Your task to perform on an android device: Add "logitech g pro" to the cart on ebay Image 0: 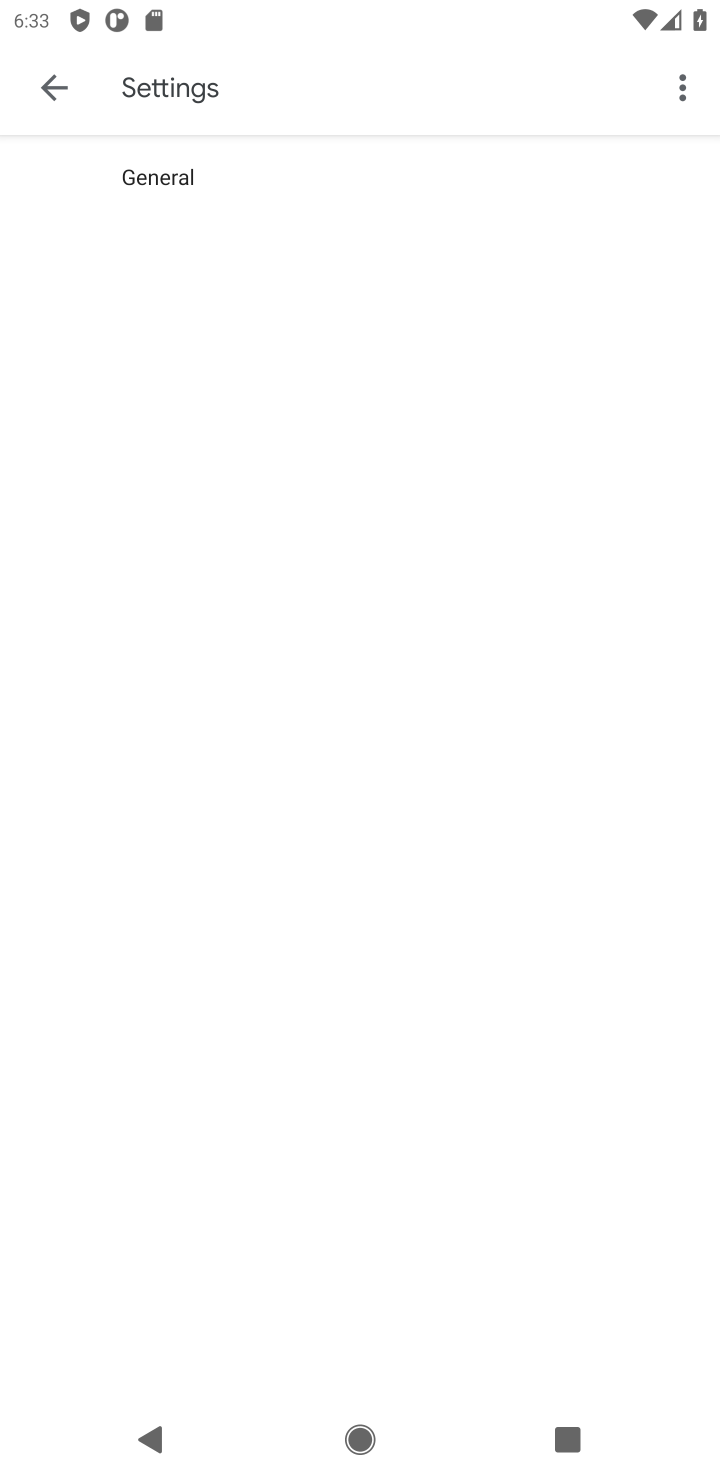
Step 0: press home button
Your task to perform on an android device: Add "logitech g pro" to the cart on ebay Image 1: 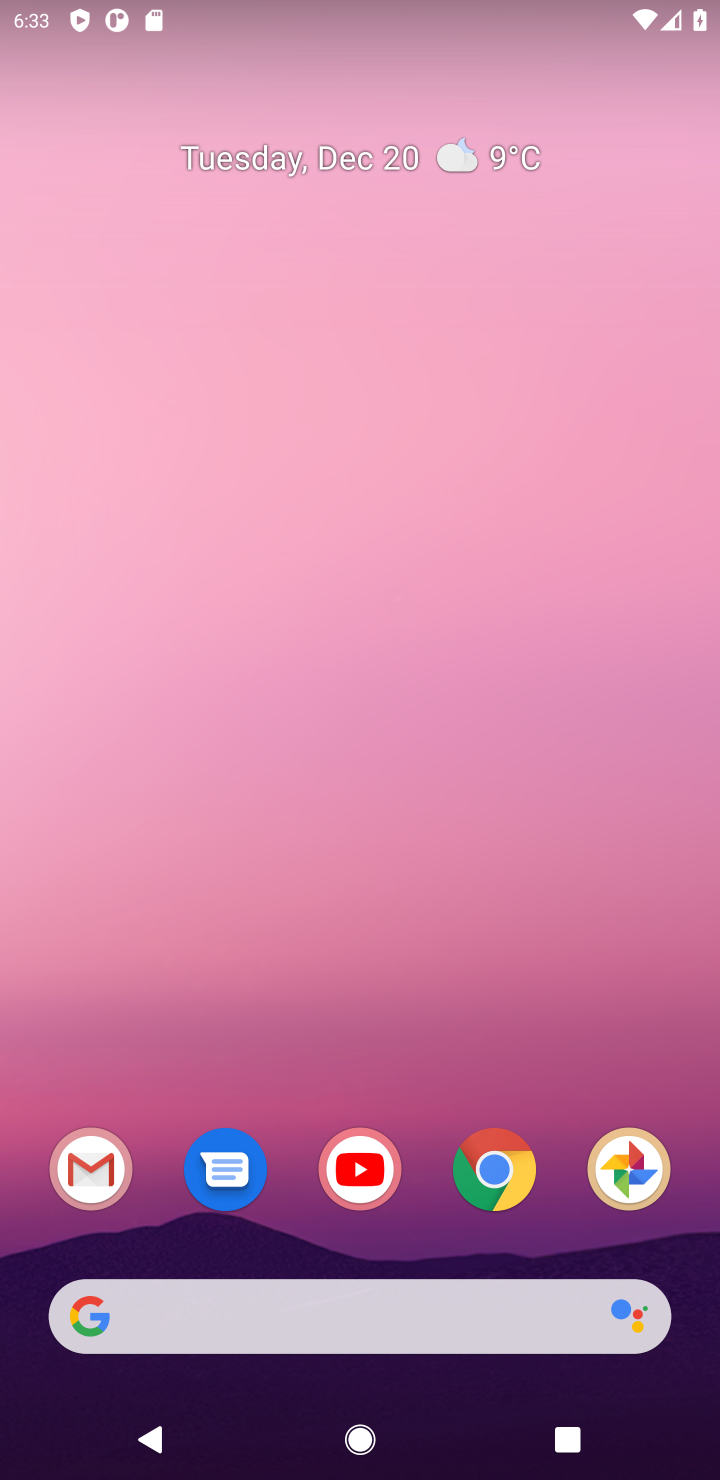
Step 1: click (510, 1159)
Your task to perform on an android device: Add "logitech g pro" to the cart on ebay Image 2: 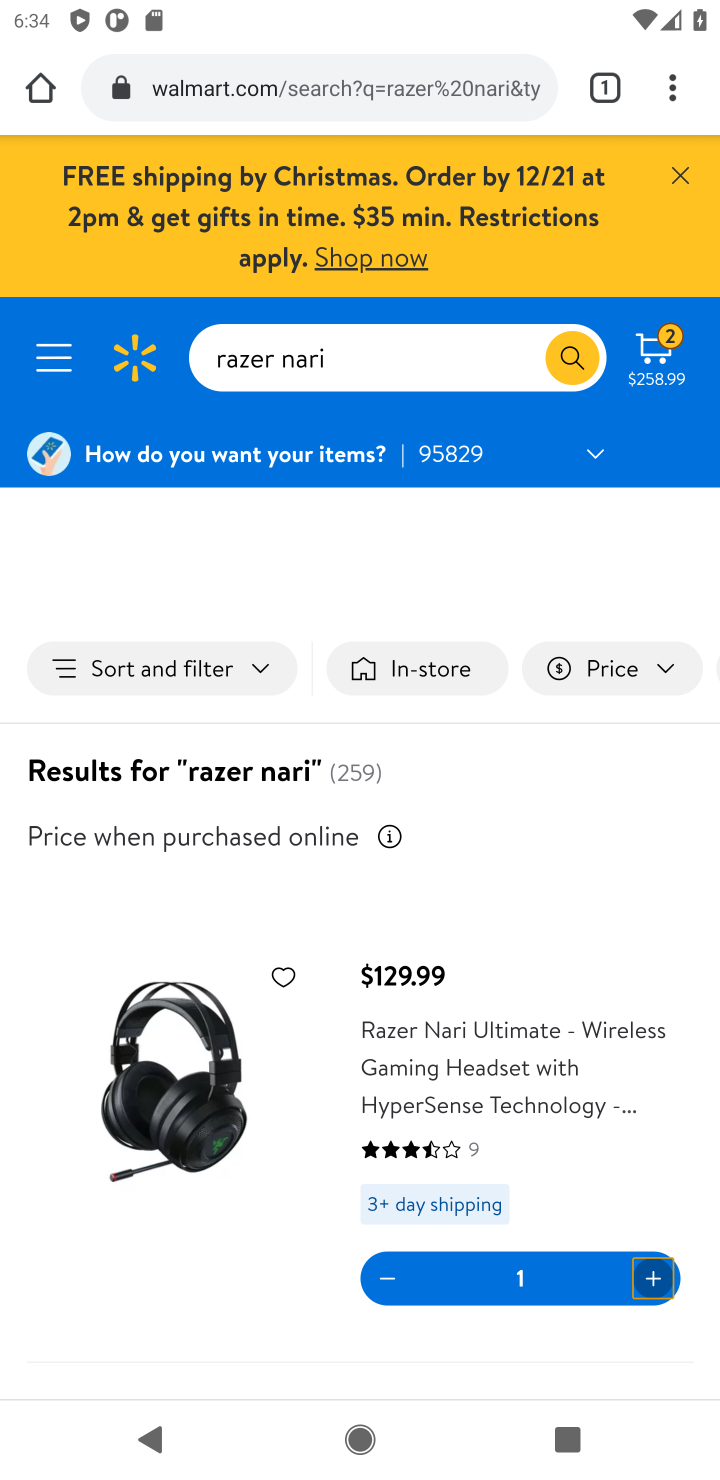
Step 2: click (270, 89)
Your task to perform on an android device: Add "logitech g pro" to the cart on ebay Image 3: 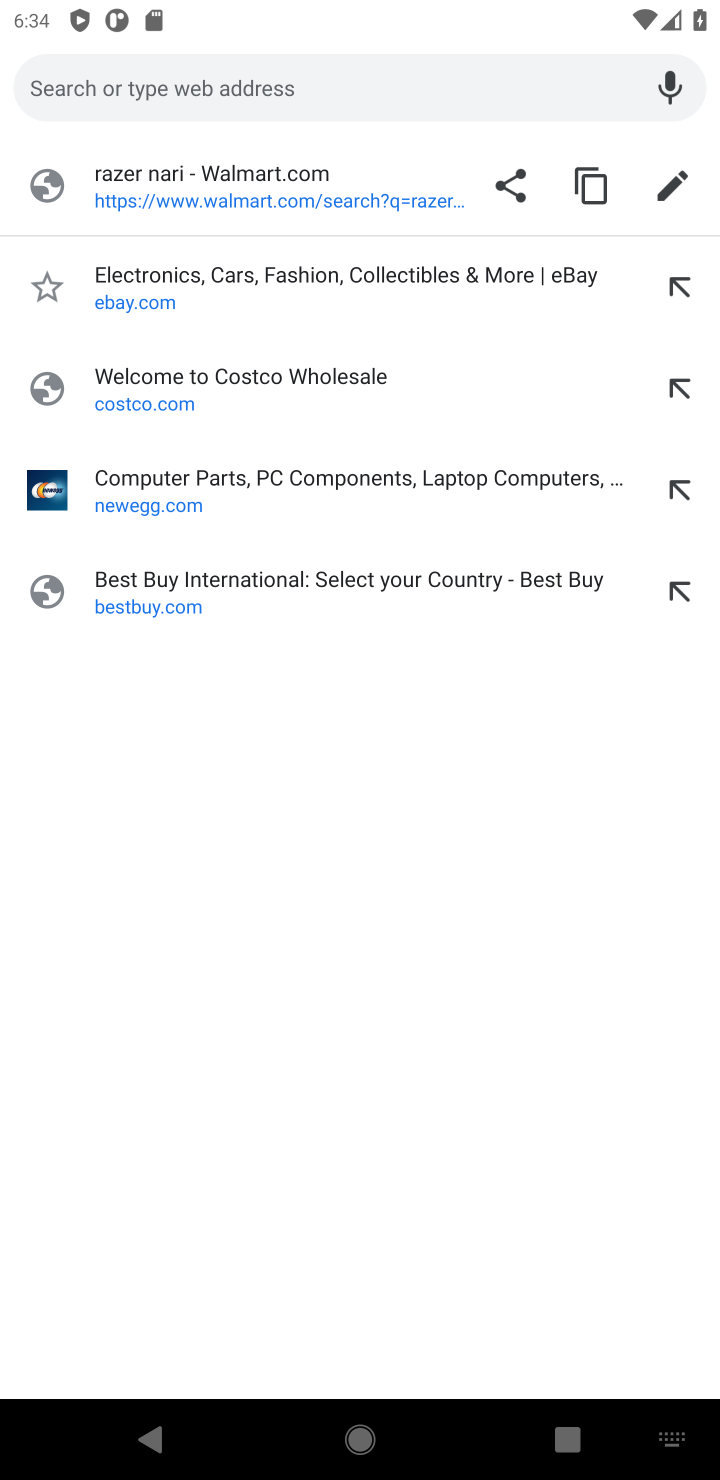
Step 3: click (205, 277)
Your task to perform on an android device: Add "logitech g pro" to the cart on ebay Image 4: 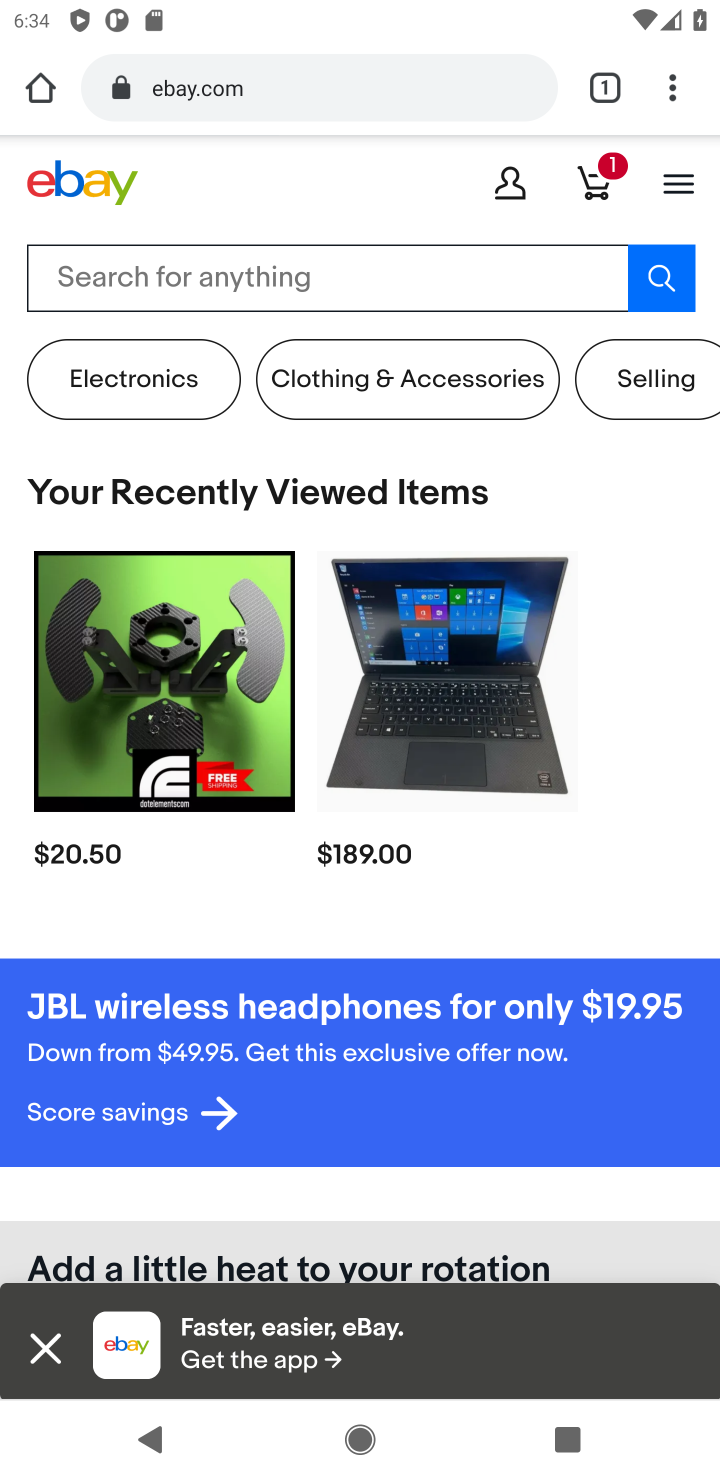
Step 4: click (205, 277)
Your task to perform on an android device: Add "logitech g pro" to the cart on ebay Image 5: 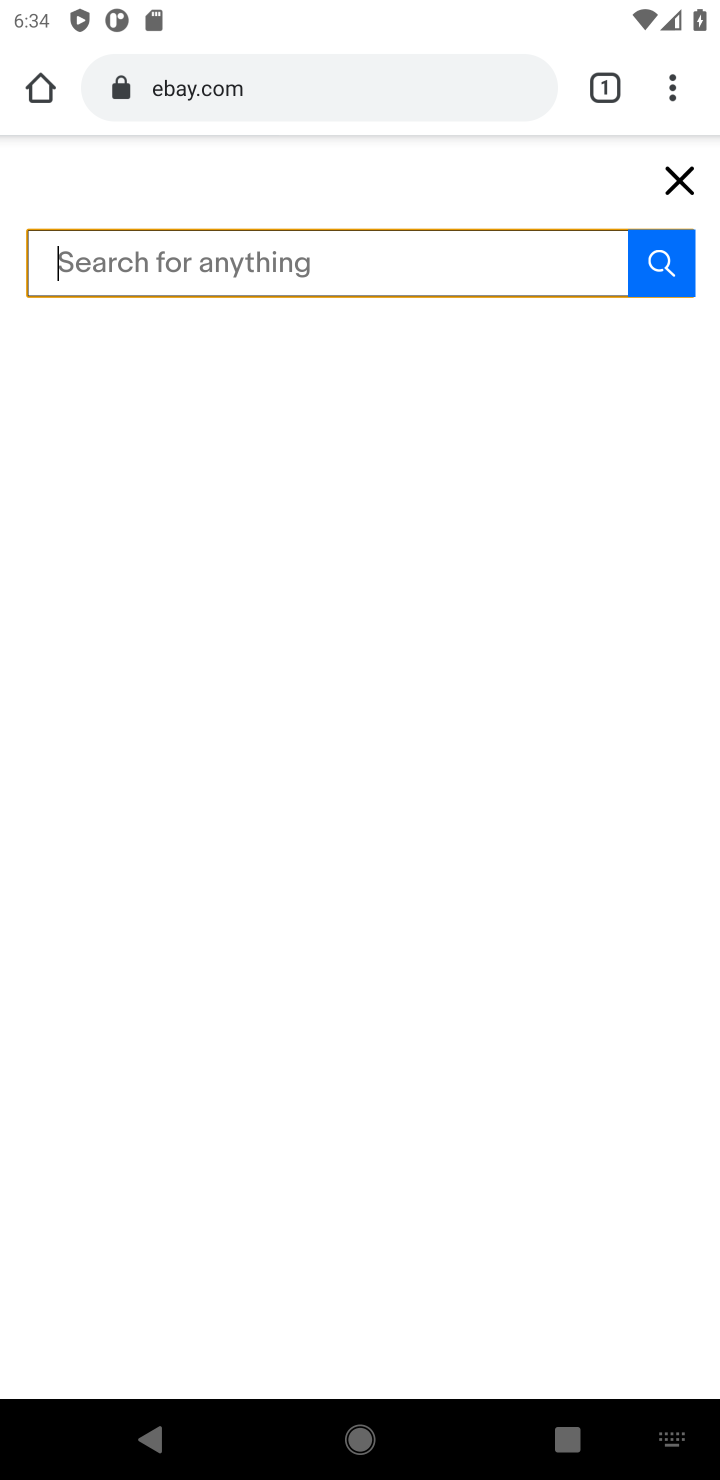
Step 5: type "logitech g pro"
Your task to perform on an android device: Add "logitech g pro" to the cart on ebay Image 6: 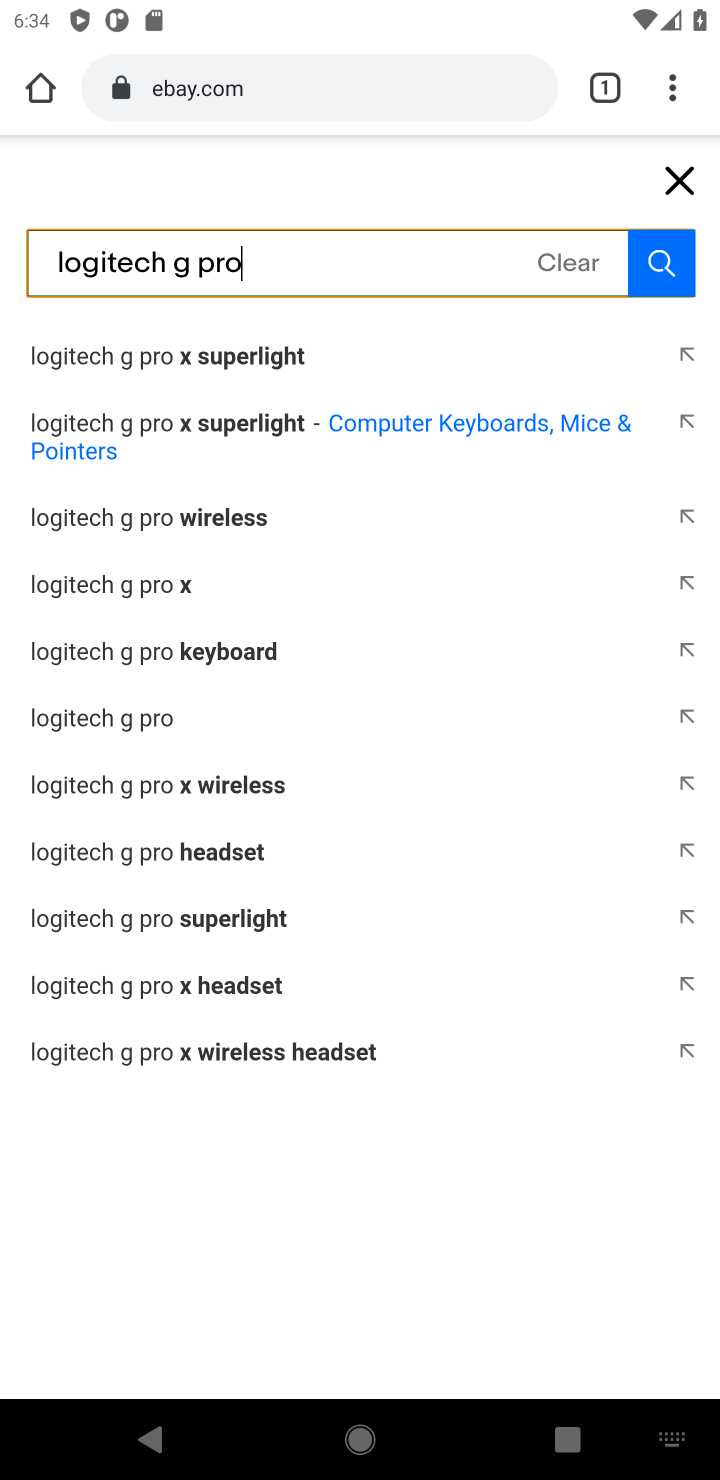
Step 6: click (150, 728)
Your task to perform on an android device: Add "logitech g pro" to the cart on ebay Image 7: 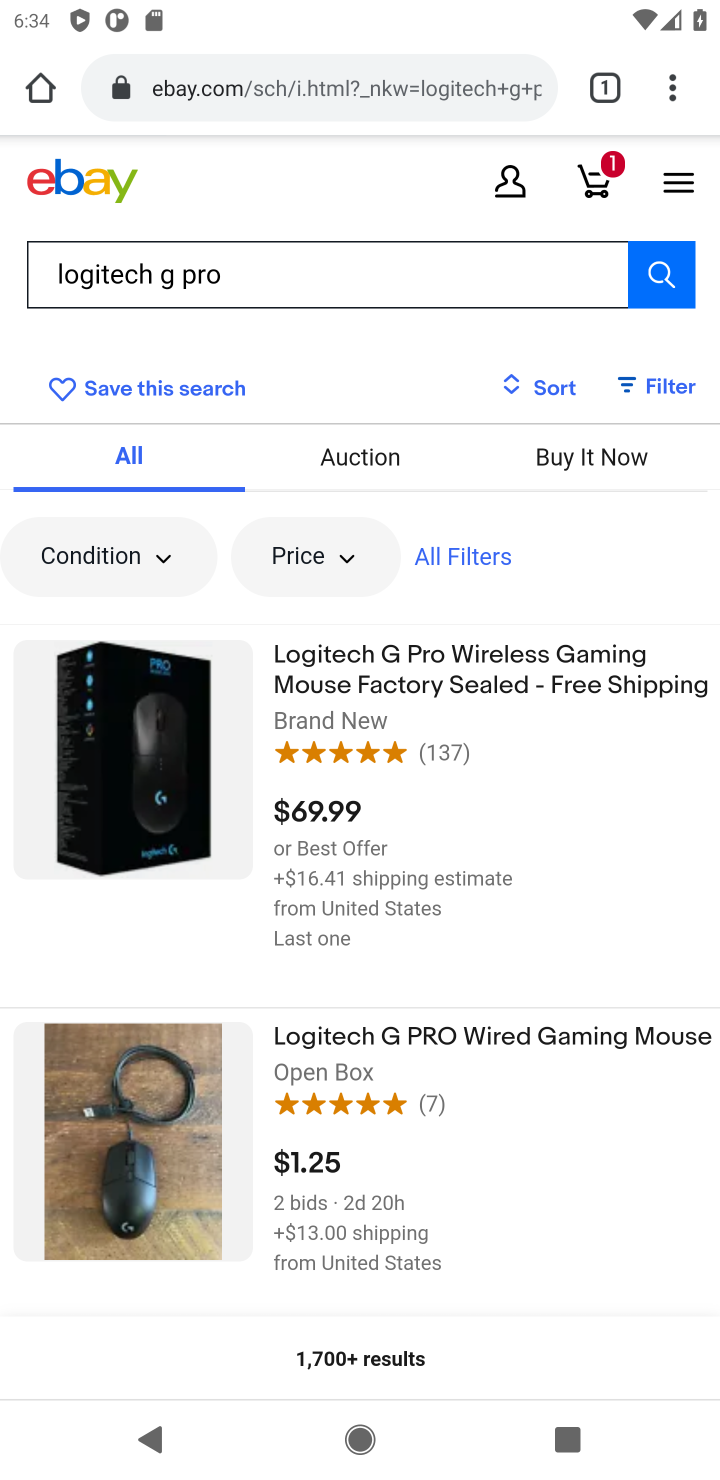
Step 7: click (565, 686)
Your task to perform on an android device: Add "logitech g pro" to the cart on ebay Image 8: 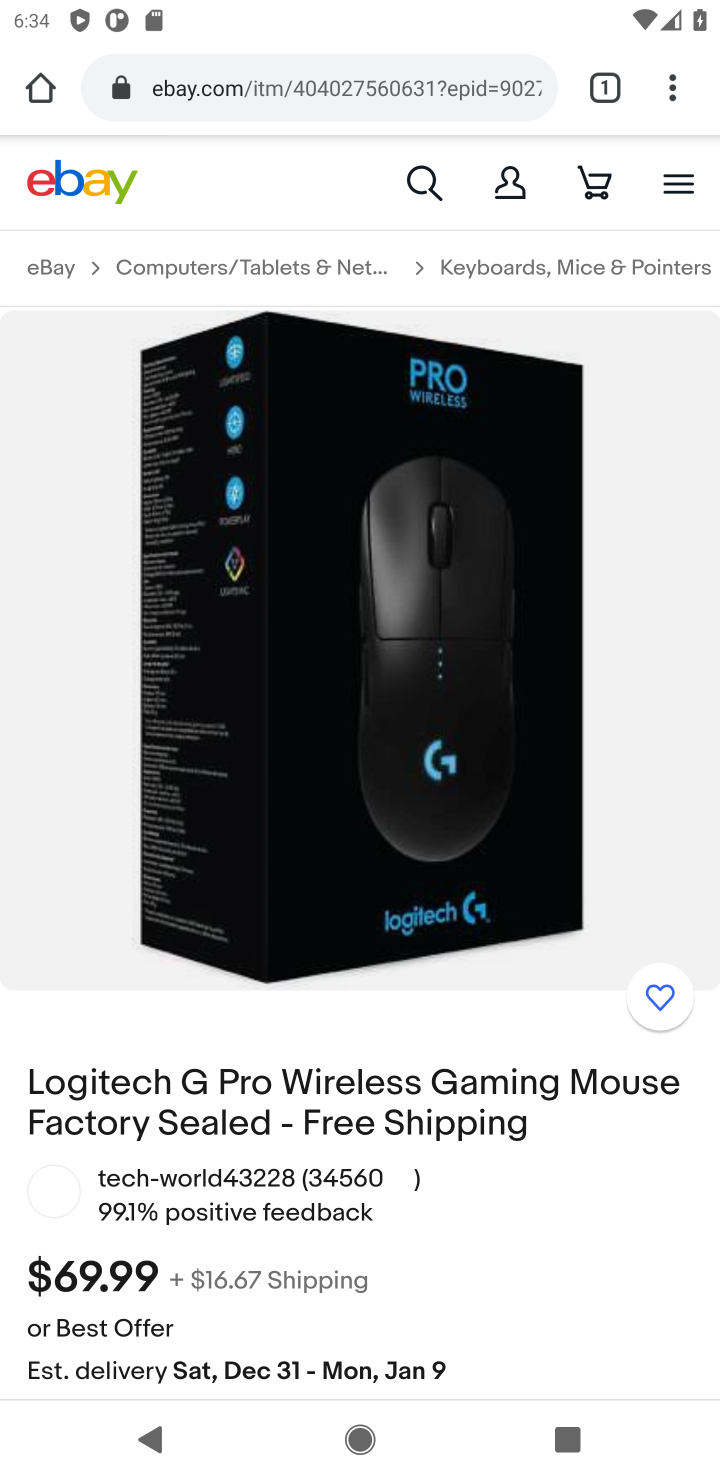
Step 8: drag from (604, 1122) to (495, 694)
Your task to perform on an android device: Add "logitech g pro" to the cart on ebay Image 9: 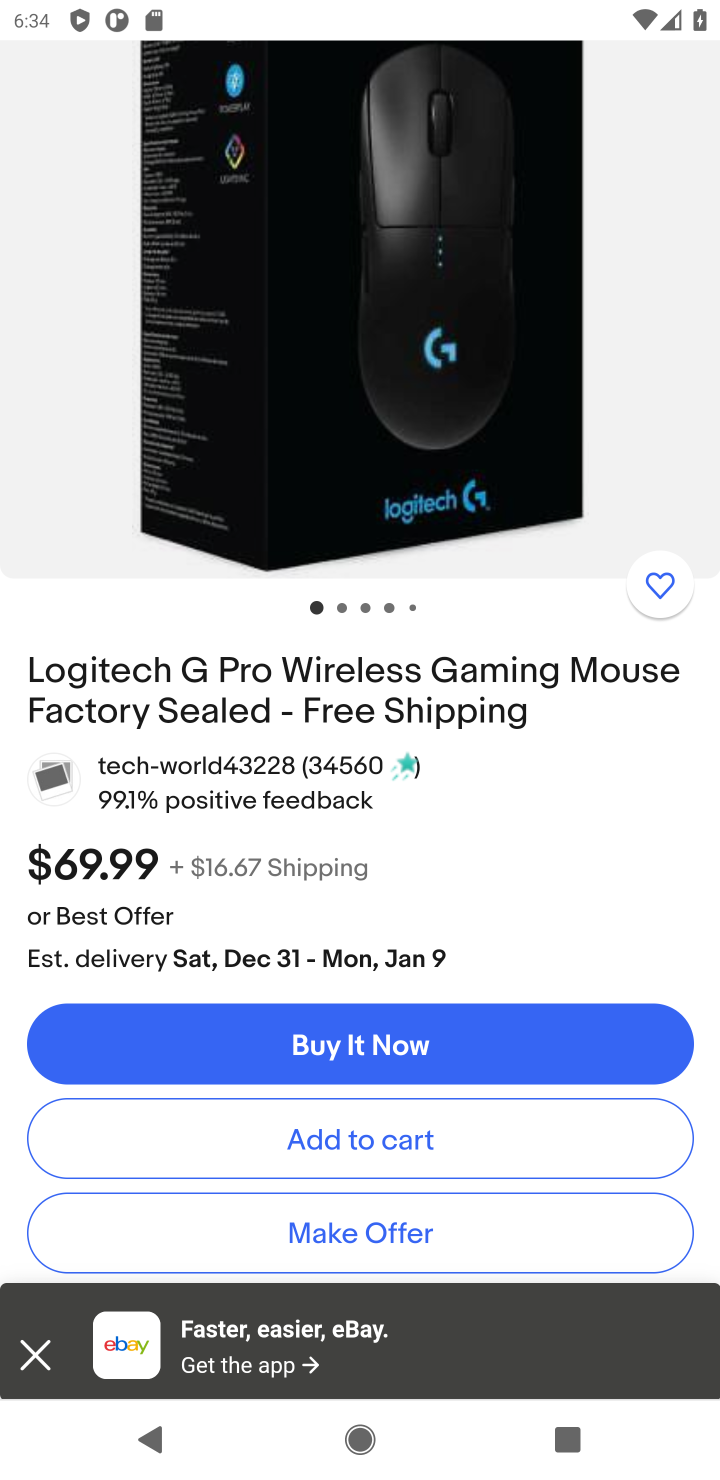
Step 9: click (522, 1111)
Your task to perform on an android device: Add "logitech g pro" to the cart on ebay Image 10: 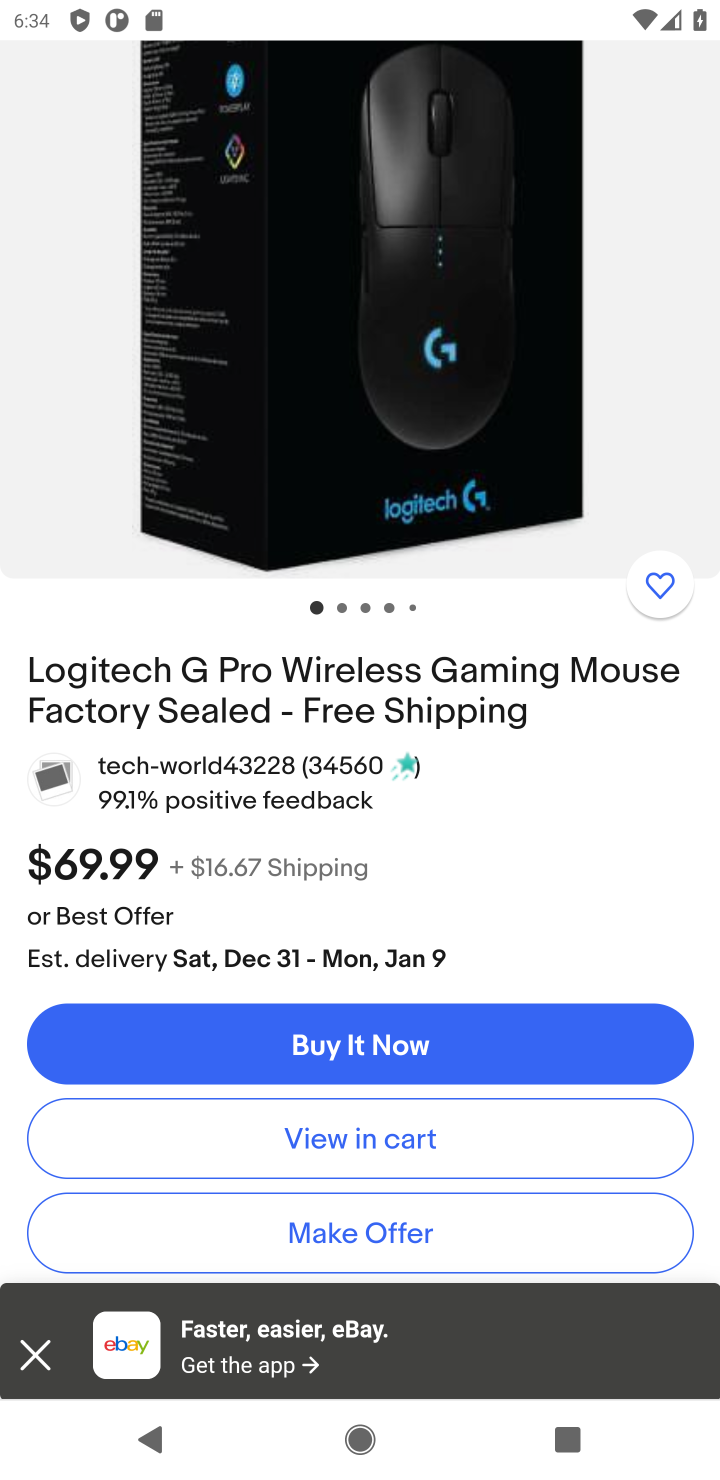
Step 10: task complete